Your task to perform on an android device: Open Android settings Image 0: 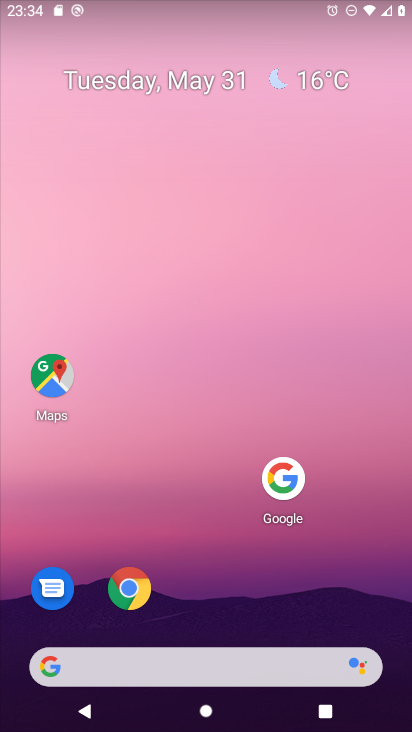
Step 0: drag from (141, 611) to (242, 109)
Your task to perform on an android device: Open Android settings Image 1: 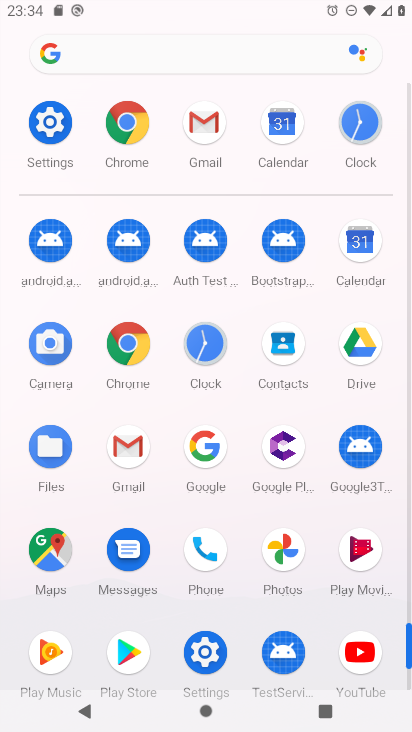
Step 1: click (50, 118)
Your task to perform on an android device: Open Android settings Image 2: 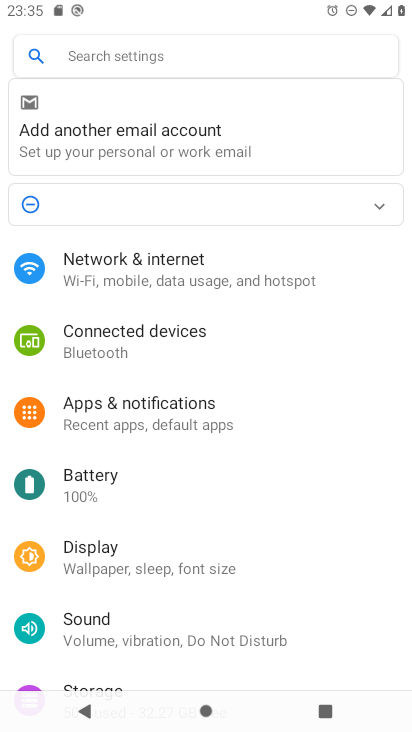
Step 2: task complete